Your task to perform on an android device: Open calendar and show me the first week of next month Image 0: 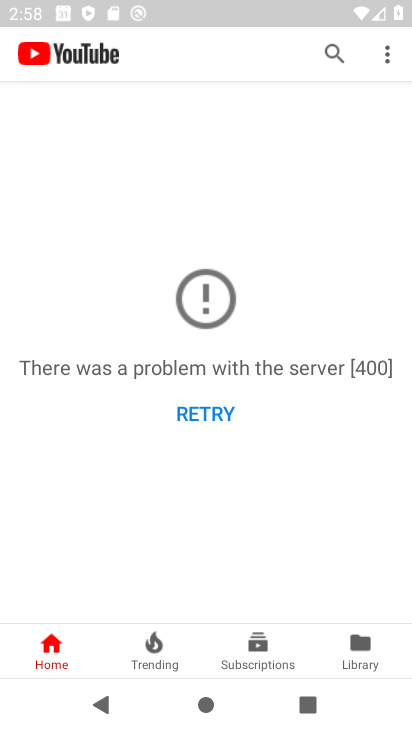
Step 0: press home button
Your task to perform on an android device: Open calendar and show me the first week of next month Image 1: 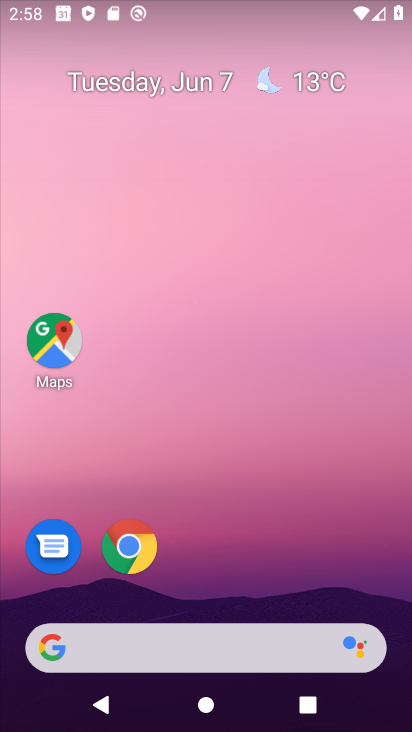
Step 1: drag from (287, 448) to (287, 184)
Your task to perform on an android device: Open calendar and show me the first week of next month Image 2: 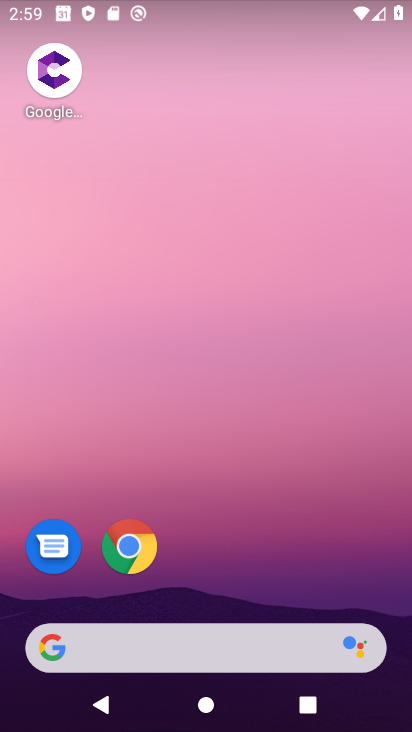
Step 2: drag from (222, 570) to (254, 120)
Your task to perform on an android device: Open calendar and show me the first week of next month Image 3: 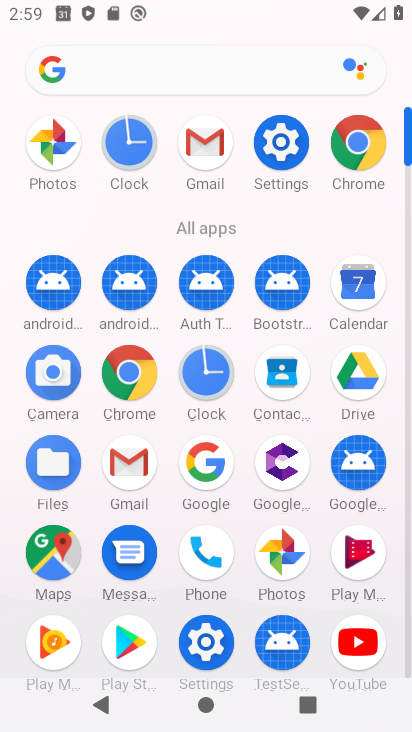
Step 3: click (361, 277)
Your task to perform on an android device: Open calendar and show me the first week of next month Image 4: 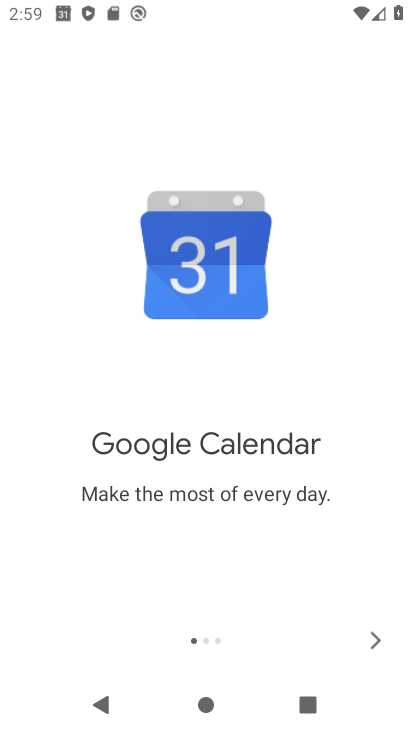
Step 4: click (377, 643)
Your task to perform on an android device: Open calendar and show me the first week of next month Image 5: 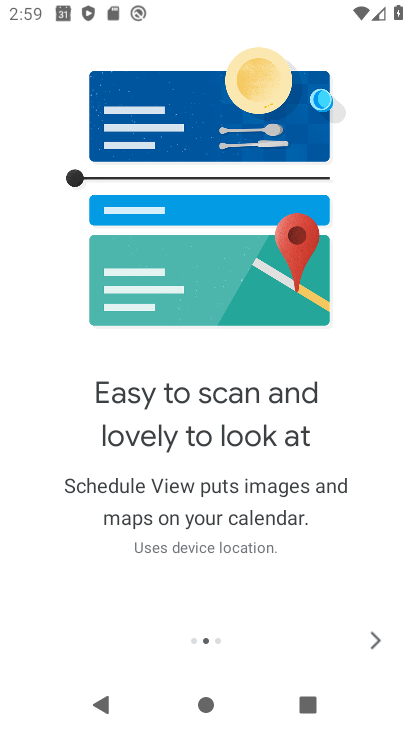
Step 5: click (377, 643)
Your task to perform on an android device: Open calendar and show me the first week of next month Image 6: 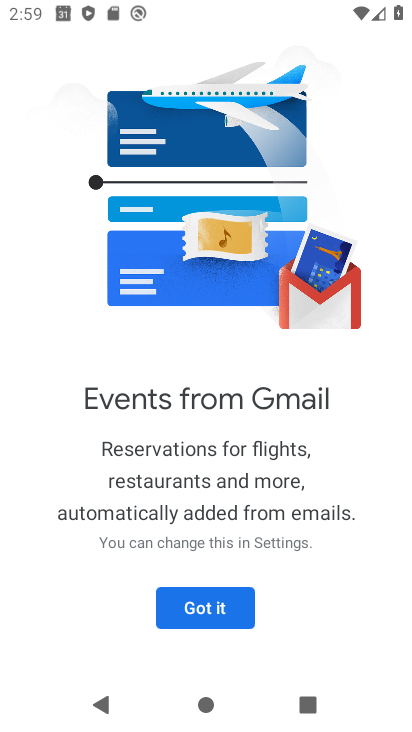
Step 6: click (219, 603)
Your task to perform on an android device: Open calendar and show me the first week of next month Image 7: 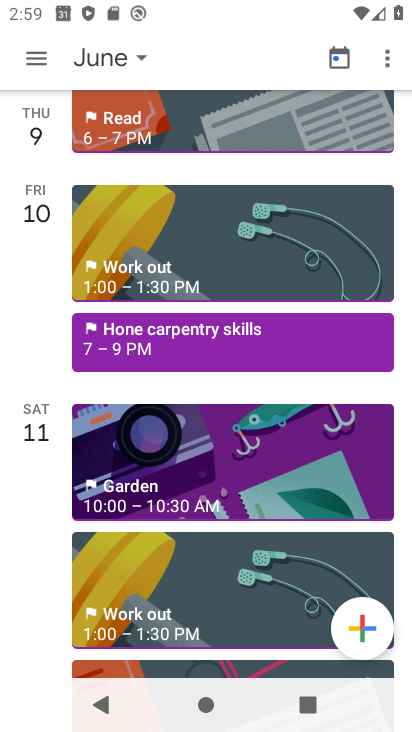
Step 7: click (136, 62)
Your task to perform on an android device: Open calendar and show me the first week of next month Image 8: 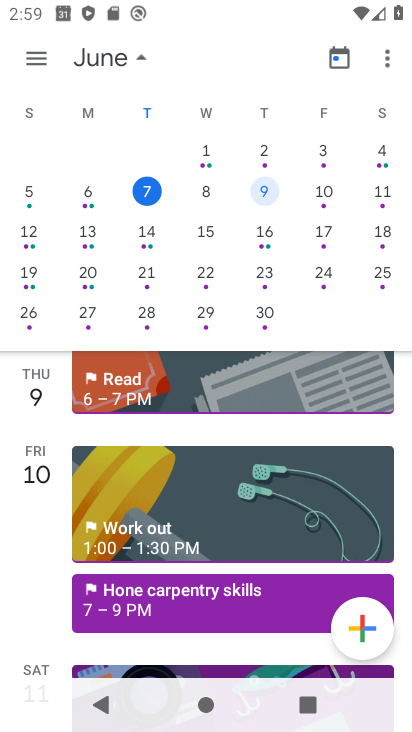
Step 8: drag from (404, 200) to (53, 200)
Your task to perform on an android device: Open calendar and show me the first week of next month Image 9: 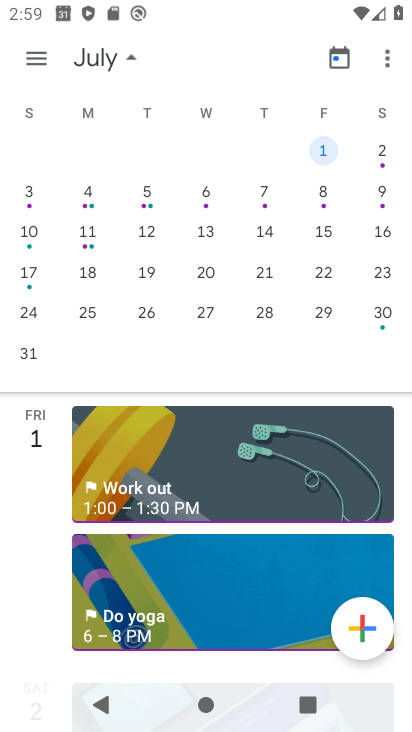
Step 9: click (375, 147)
Your task to perform on an android device: Open calendar and show me the first week of next month Image 10: 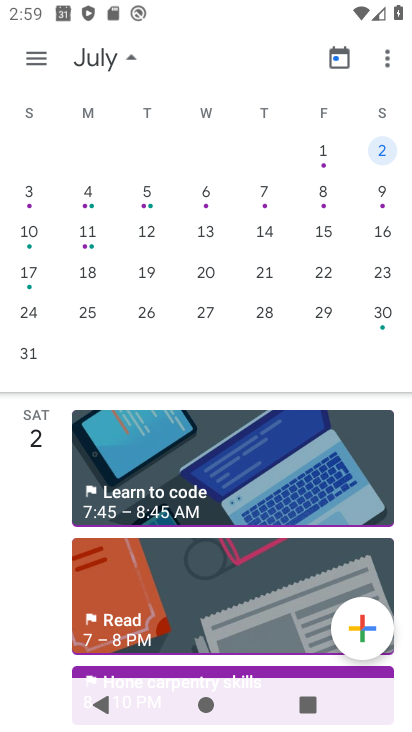
Step 10: task complete